Your task to perform on an android device: toggle show notifications on the lock screen Image 0: 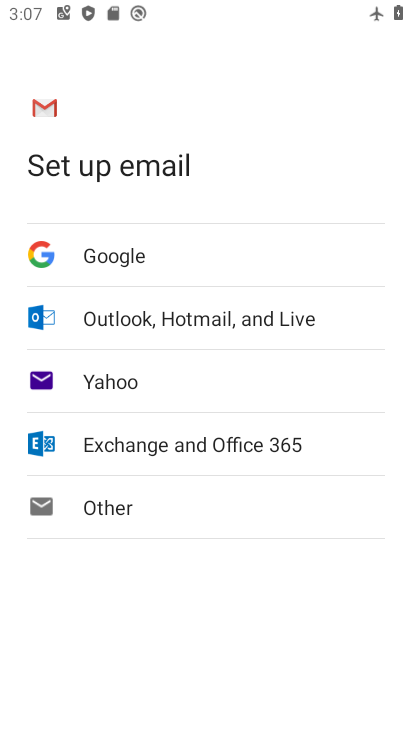
Step 0: press back button
Your task to perform on an android device: toggle show notifications on the lock screen Image 1: 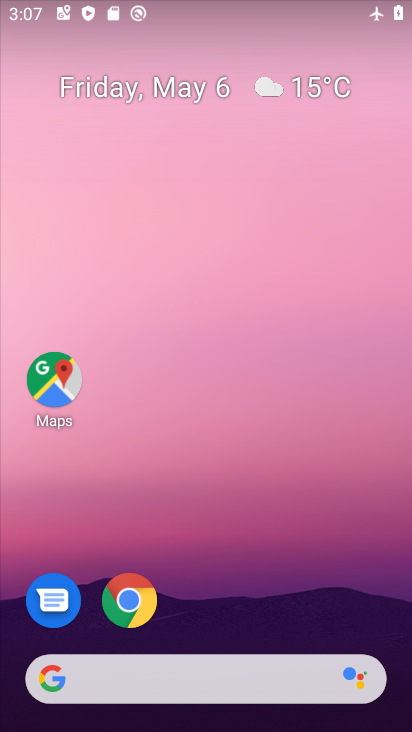
Step 1: drag from (269, 609) to (266, 10)
Your task to perform on an android device: toggle show notifications on the lock screen Image 2: 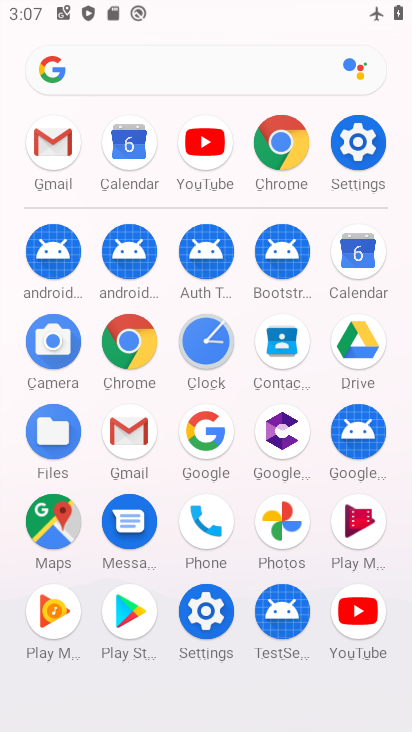
Step 2: drag from (3, 595) to (22, 176)
Your task to perform on an android device: toggle show notifications on the lock screen Image 3: 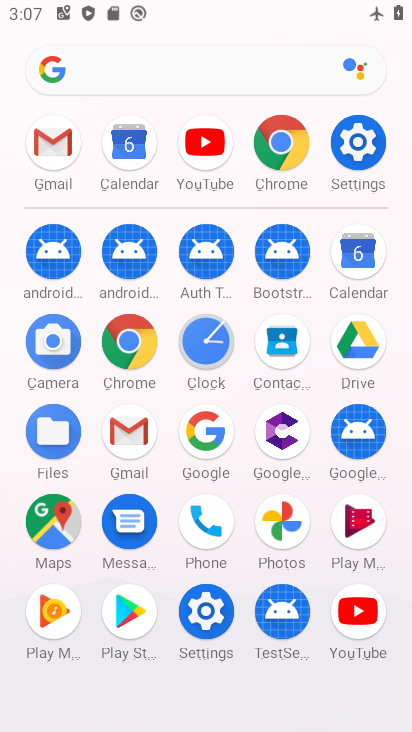
Step 3: drag from (18, 588) to (15, 182)
Your task to perform on an android device: toggle show notifications on the lock screen Image 4: 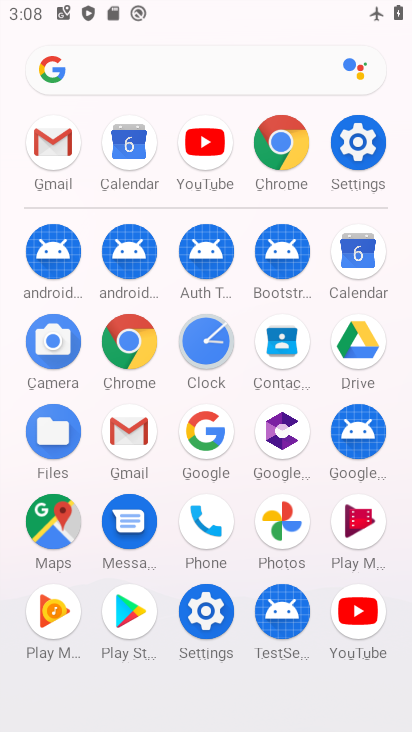
Step 4: click (205, 603)
Your task to perform on an android device: toggle show notifications on the lock screen Image 5: 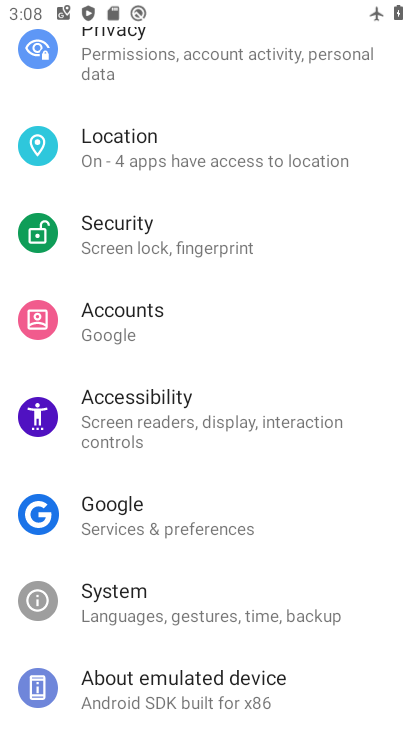
Step 5: drag from (228, 158) to (218, 570)
Your task to perform on an android device: toggle show notifications on the lock screen Image 6: 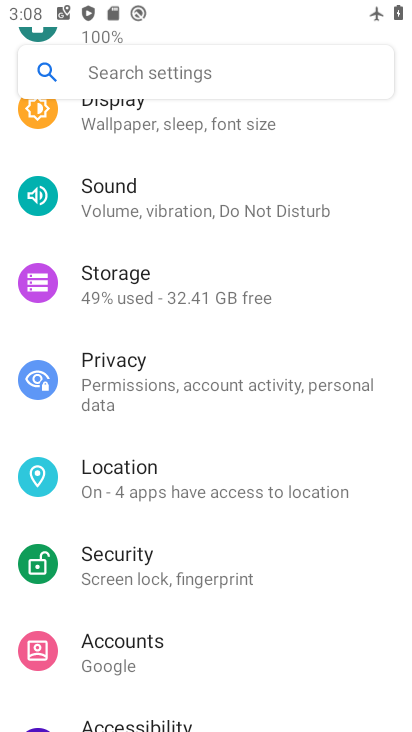
Step 6: drag from (229, 197) to (272, 649)
Your task to perform on an android device: toggle show notifications on the lock screen Image 7: 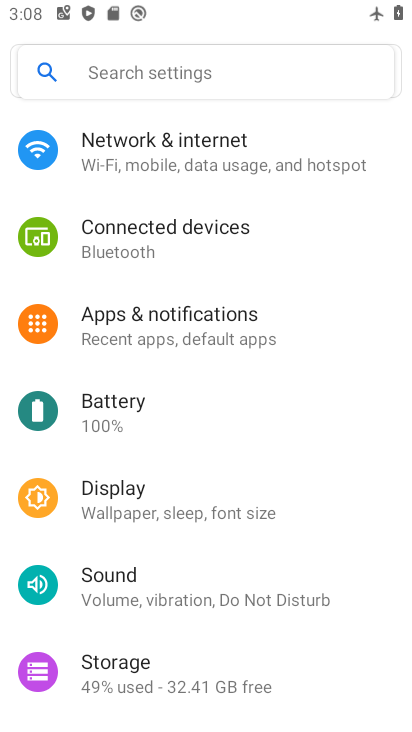
Step 7: click (193, 341)
Your task to perform on an android device: toggle show notifications on the lock screen Image 8: 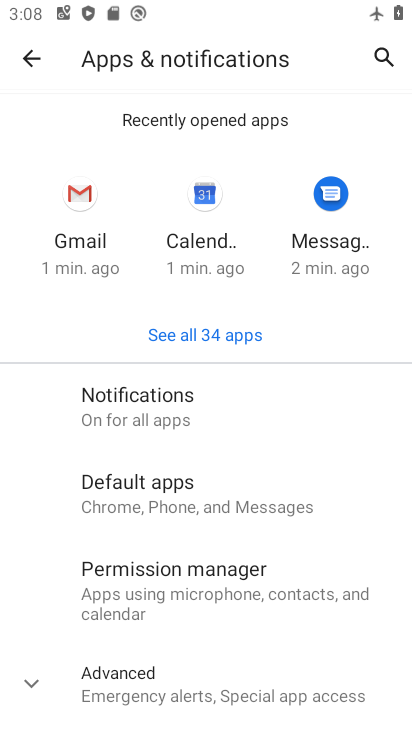
Step 8: click (192, 421)
Your task to perform on an android device: toggle show notifications on the lock screen Image 9: 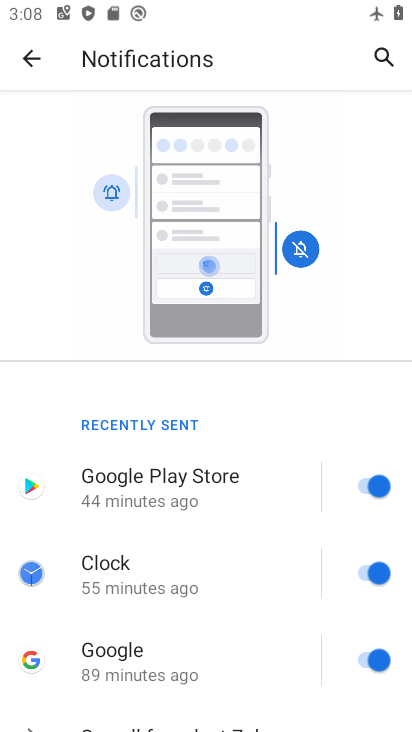
Step 9: drag from (207, 557) to (228, 96)
Your task to perform on an android device: toggle show notifications on the lock screen Image 10: 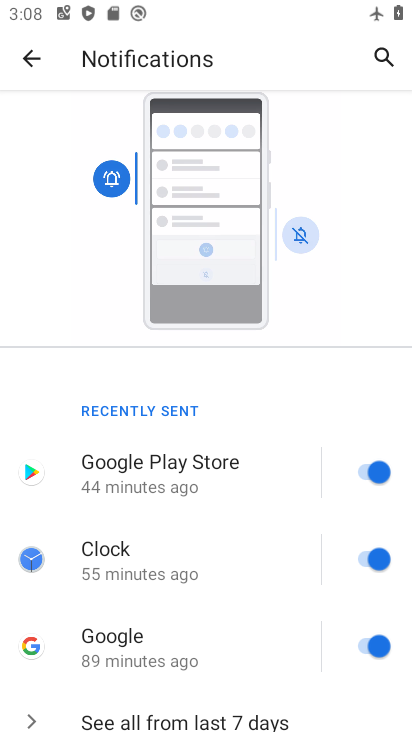
Step 10: drag from (223, 568) to (243, 73)
Your task to perform on an android device: toggle show notifications on the lock screen Image 11: 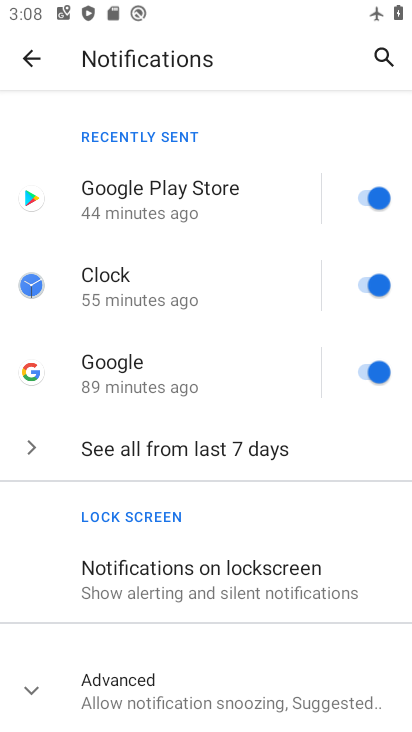
Step 11: click (200, 577)
Your task to perform on an android device: toggle show notifications on the lock screen Image 12: 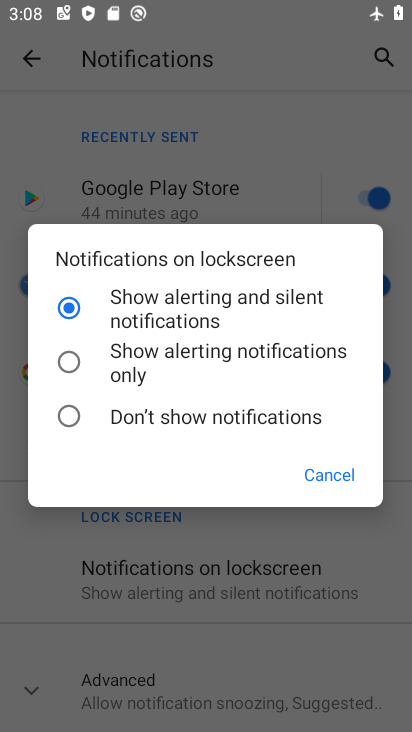
Step 12: click (165, 307)
Your task to perform on an android device: toggle show notifications on the lock screen Image 13: 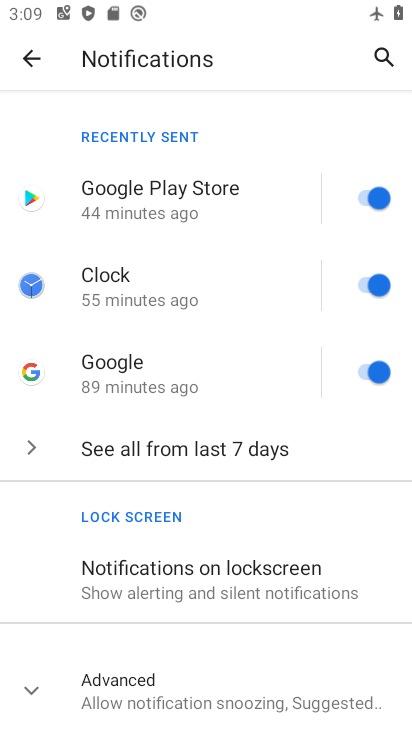
Step 13: task complete